Your task to perform on an android device: delete browsing data in the chrome app Image 0: 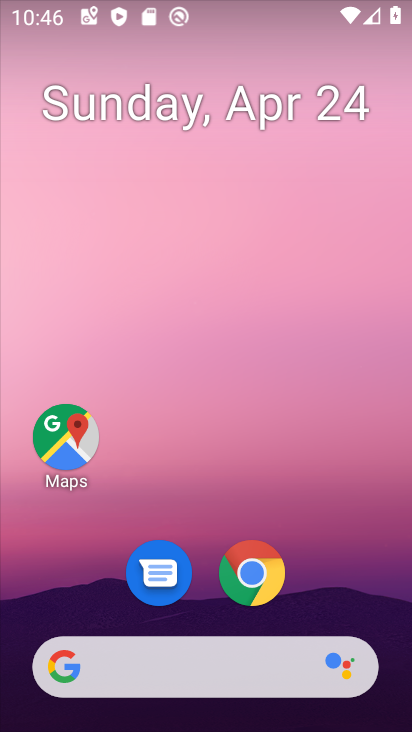
Step 0: click (259, 547)
Your task to perform on an android device: delete browsing data in the chrome app Image 1: 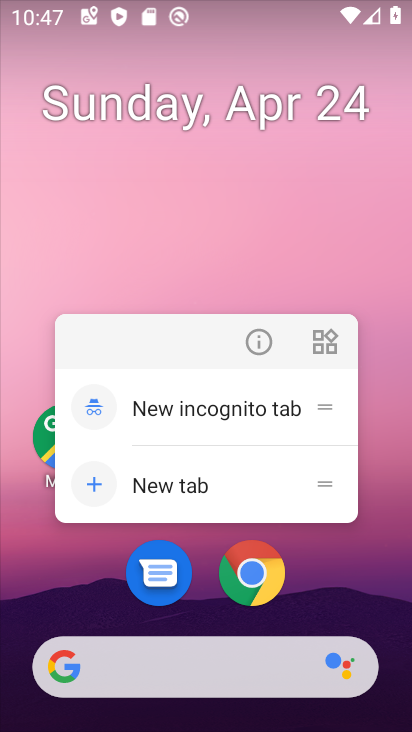
Step 1: click (246, 549)
Your task to perform on an android device: delete browsing data in the chrome app Image 2: 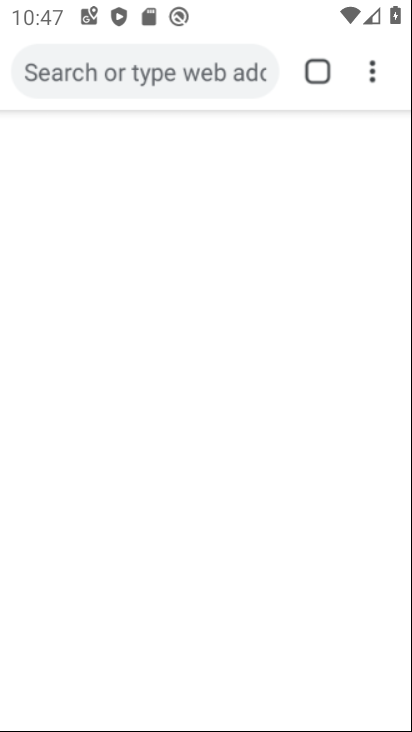
Step 2: click (253, 564)
Your task to perform on an android device: delete browsing data in the chrome app Image 3: 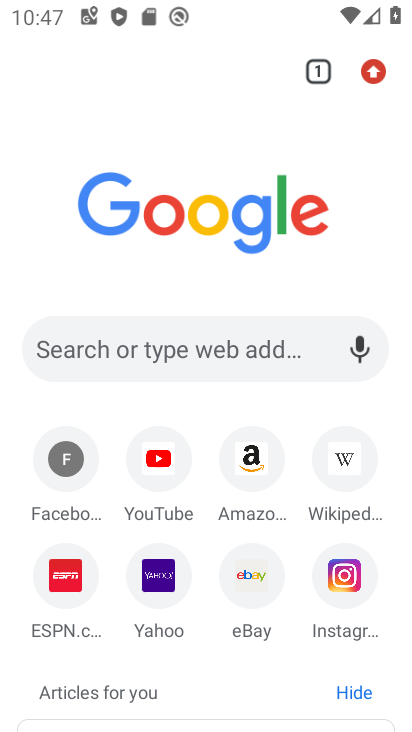
Step 3: click (383, 75)
Your task to perform on an android device: delete browsing data in the chrome app Image 4: 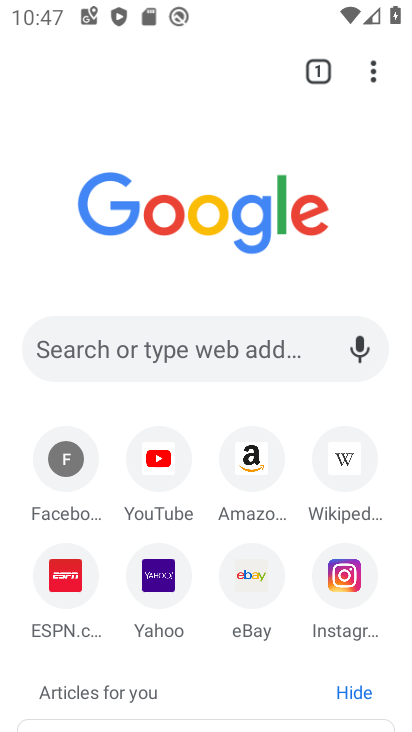
Step 4: click (384, 75)
Your task to perform on an android device: delete browsing data in the chrome app Image 5: 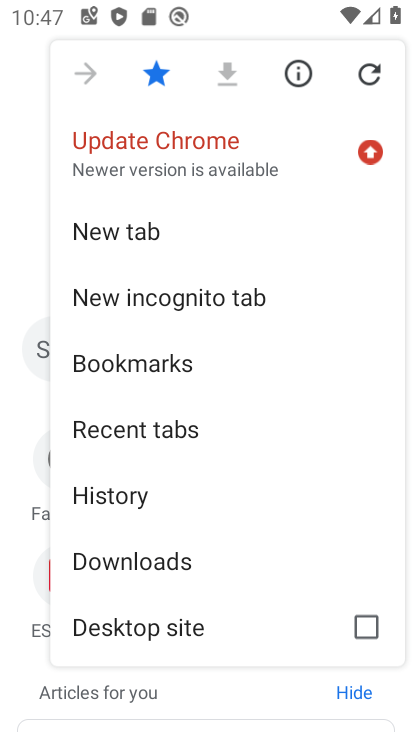
Step 5: click (163, 483)
Your task to perform on an android device: delete browsing data in the chrome app Image 6: 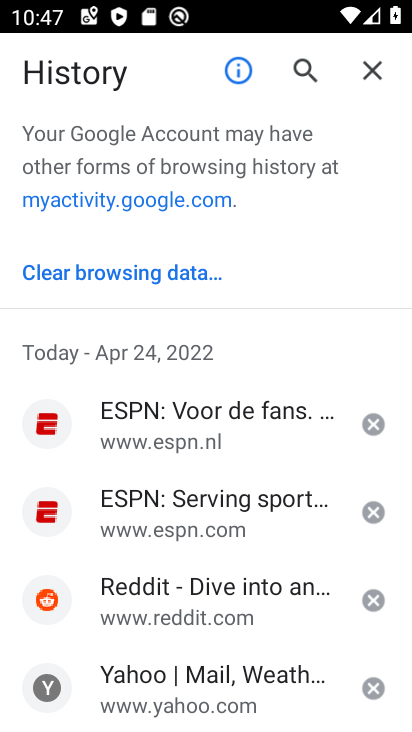
Step 6: click (131, 272)
Your task to perform on an android device: delete browsing data in the chrome app Image 7: 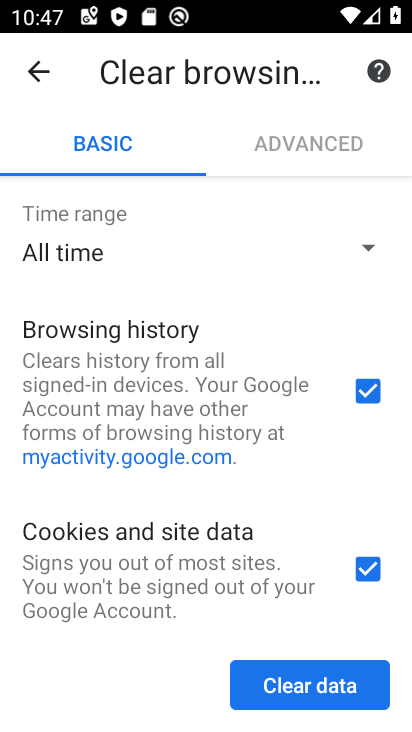
Step 7: click (314, 669)
Your task to perform on an android device: delete browsing data in the chrome app Image 8: 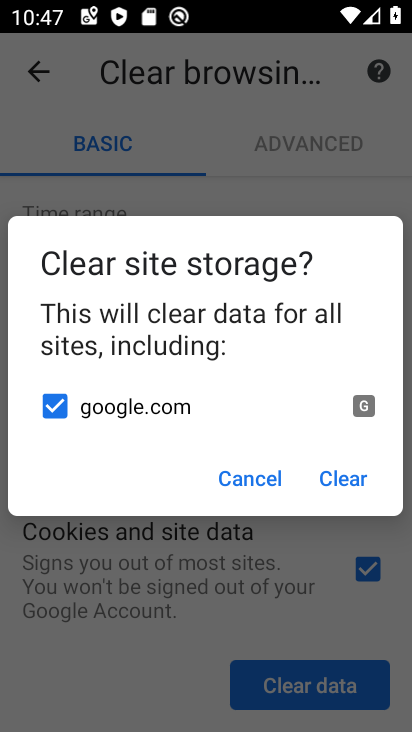
Step 8: click (351, 468)
Your task to perform on an android device: delete browsing data in the chrome app Image 9: 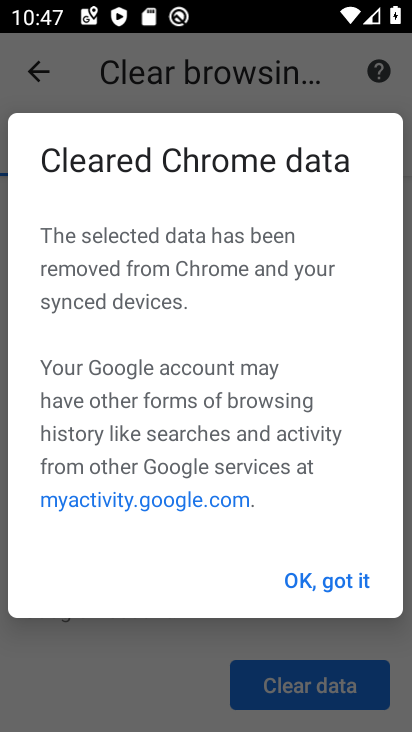
Step 9: click (313, 583)
Your task to perform on an android device: delete browsing data in the chrome app Image 10: 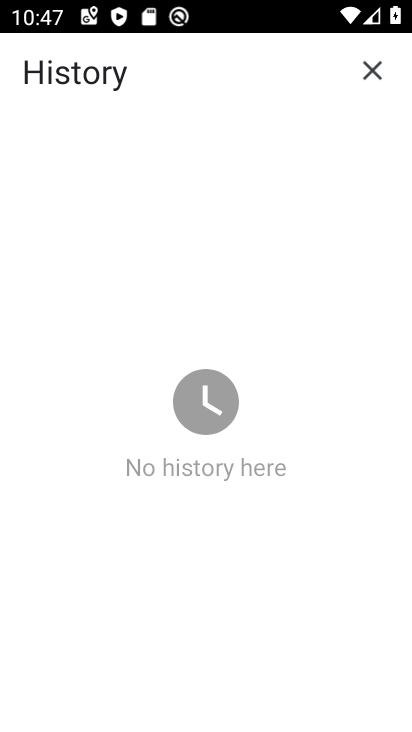
Step 10: task complete